Your task to perform on an android device: turn on notifications settings in the gmail app Image 0: 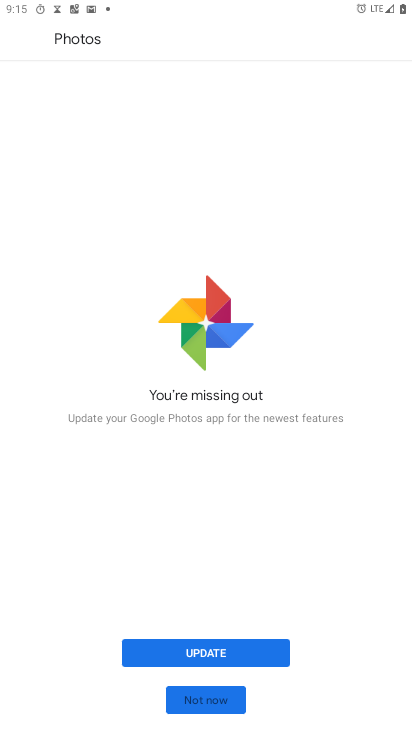
Step 0: press home button
Your task to perform on an android device: turn on notifications settings in the gmail app Image 1: 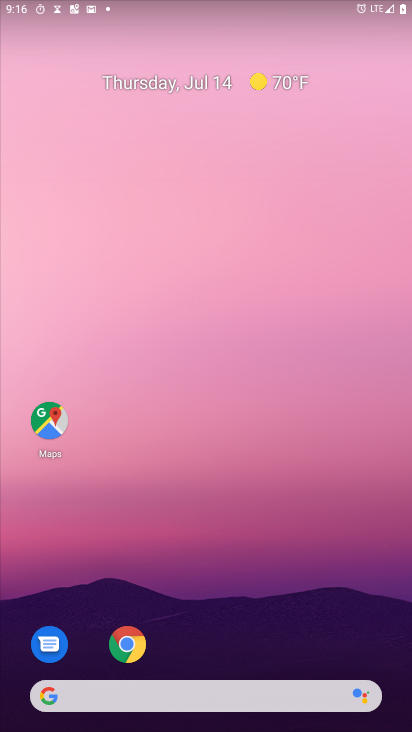
Step 1: drag from (158, 694) to (348, 79)
Your task to perform on an android device: turn on notifications settings in the gmail app Image 2: 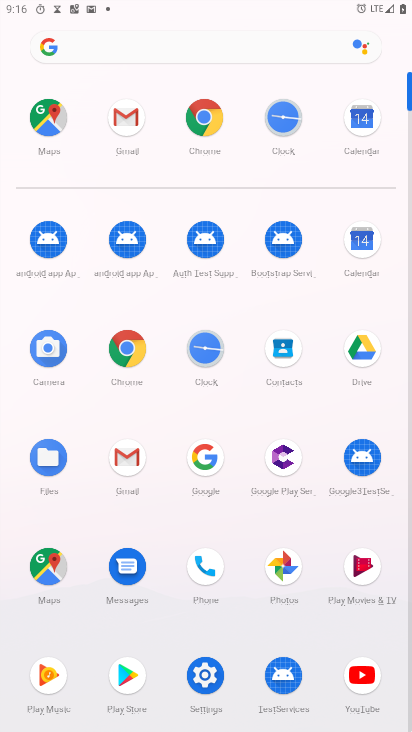
Step 2: click (122, 463)
Your task to perform on an android device: turn on notifications settings in the gmail app Image 3: 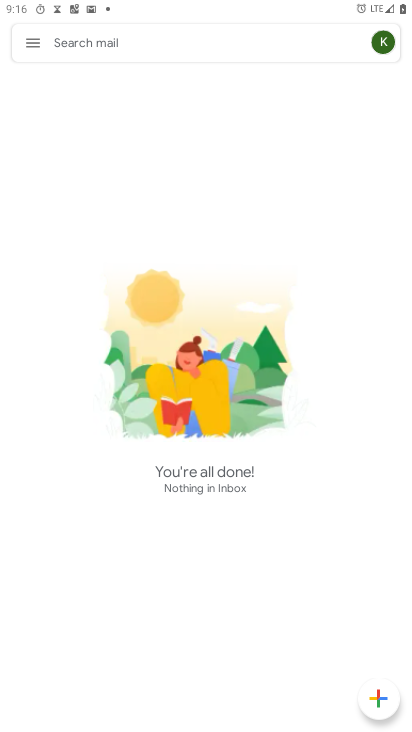
Step 3: click (34, 40)
Your task to perform on an android device: turn on notifications settings in the gmail app Image 4: 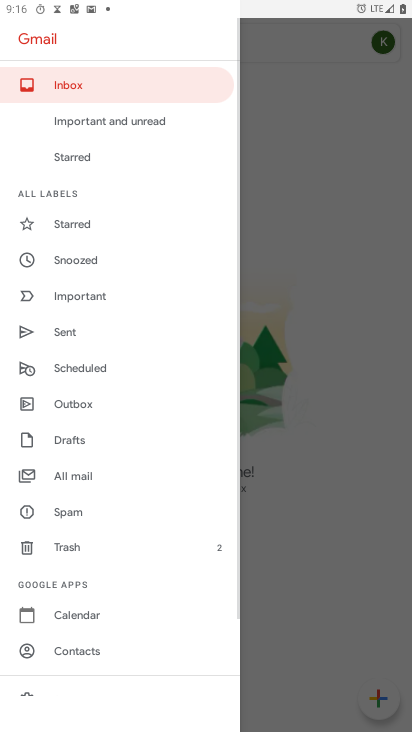
Step 4: drag from (133, 644) to (230, 97)
Your task to perform on an android device: turn on notifications settings in the gmail app Image 5: 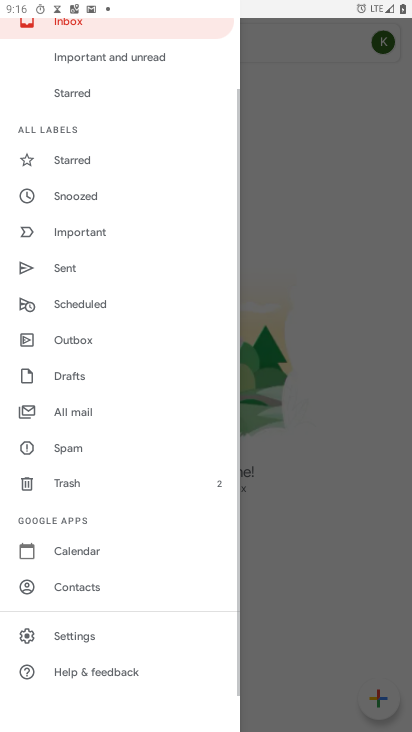
Step 5: click (98, 635)
Your task to perform on an android device: turn on notifications settings in the gmail app Image 6: 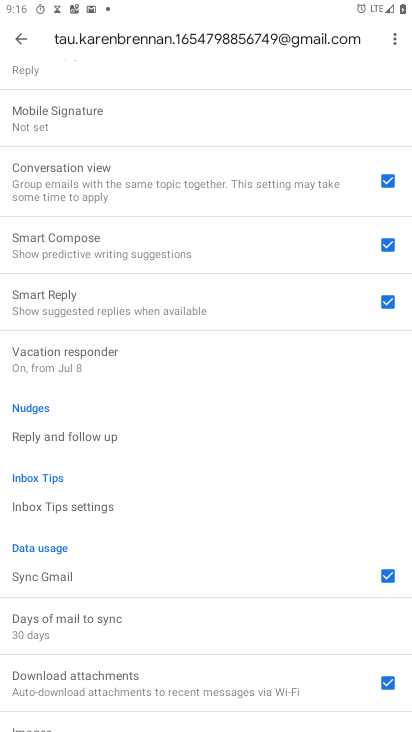
Step 6: drag from (295, 164) to (273, 632)
Your task to perform on an android device: turn on notifications settings in the gmail app Image 7: 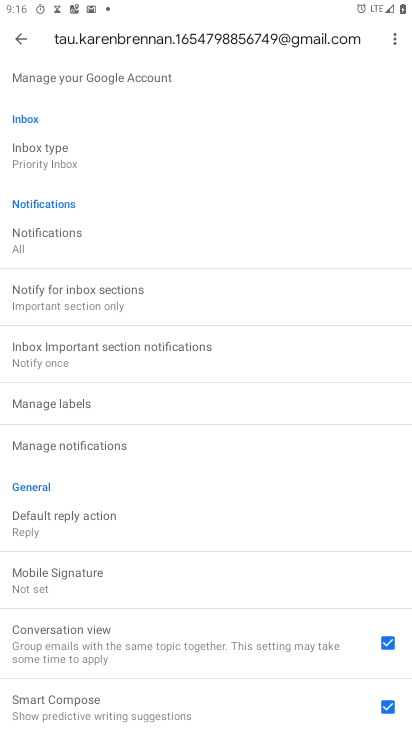
Step 7: click (67, 240)
Your task to perform on an android device: turn on notifications settings in the gmail app Image 8: 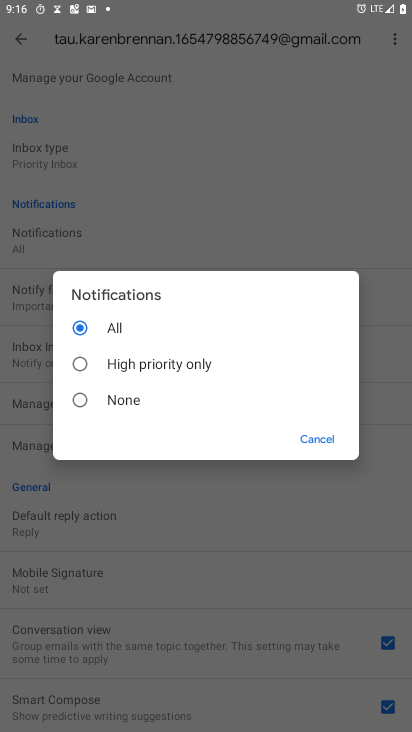
Step 8: task complete